Your task to perform on an android device: check battery use Image 0: 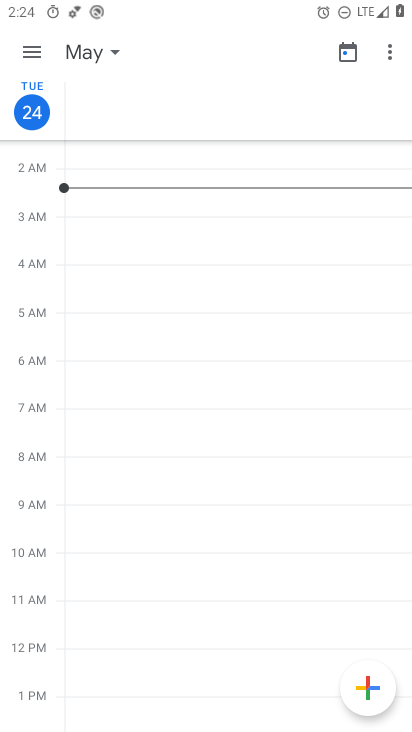
Step 0: press home button
Your task to perform on an android device: check battery use Image 1: 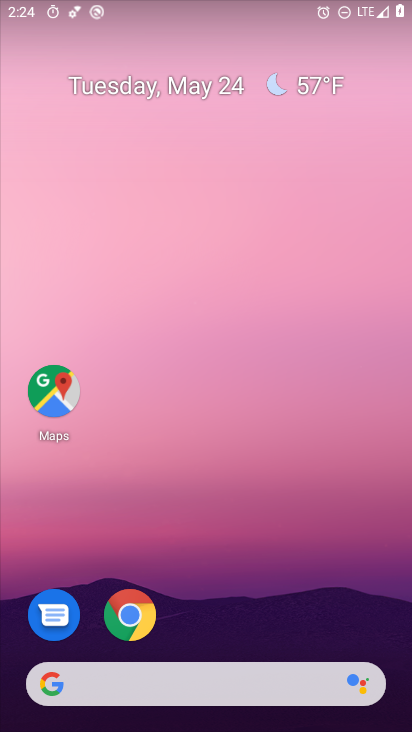
Step 1: drag from (173, 641) to (208, 257)
Your task to perform on an android device: check battery use Image 2: 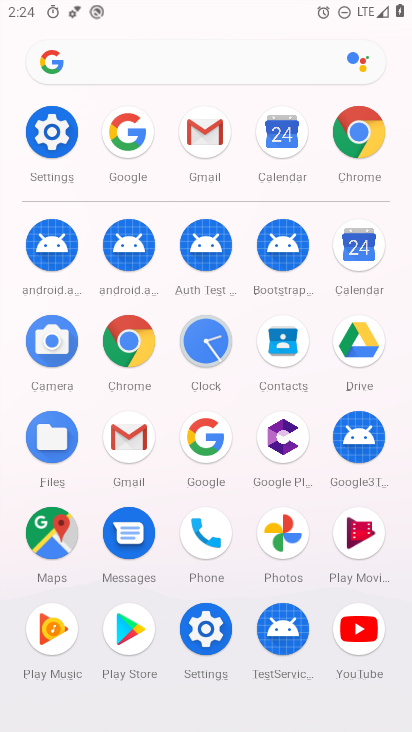
Step 2: click (72, 134)
Your task to perform on an android device: check battery use Image 3: 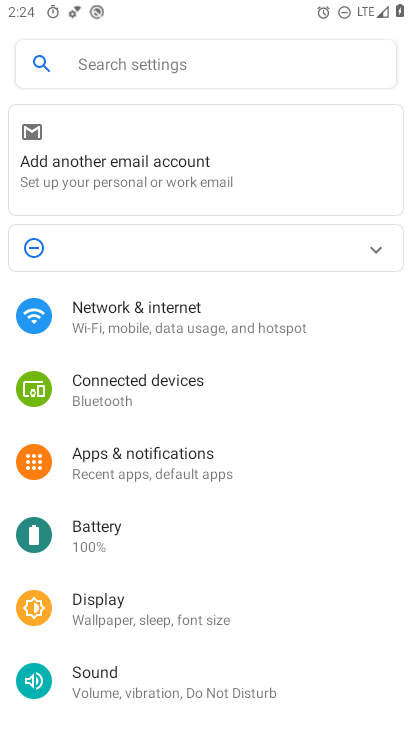
Step 3: click (106, 532)
Your task to perform on an android device: check battery use Image 4: 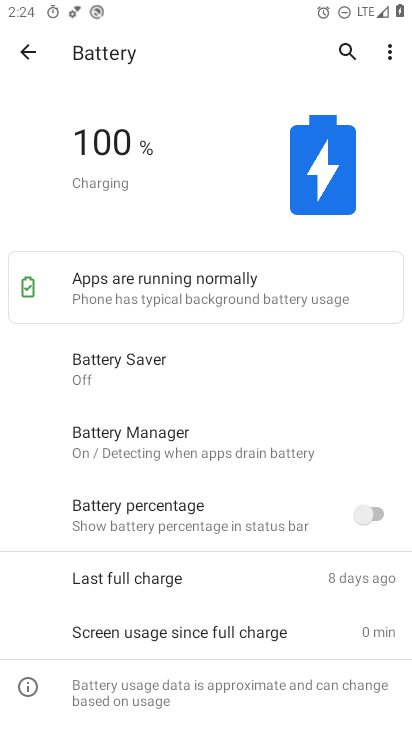
Step 4: click (387, 56)
Your task to perform on an android device: check battery use Image 5: 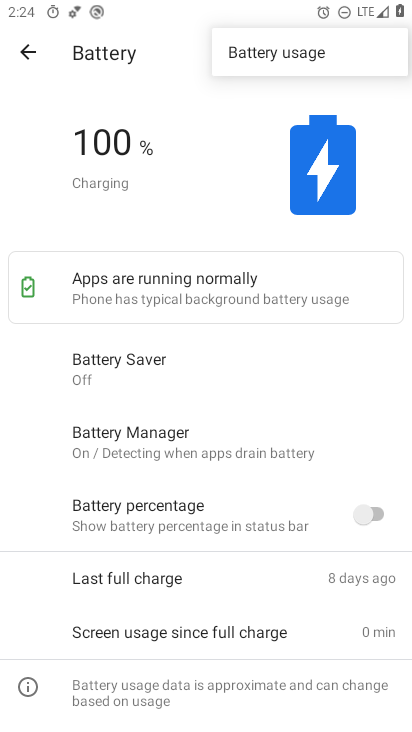
Step 5: click (257, 44)
Your task to perform on an android device: check battery use Image 6: 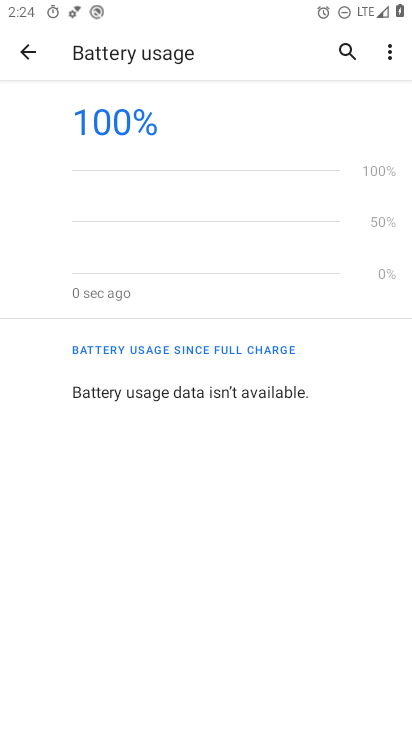
Step 6: task complete